Your task to perform on an android device: make emails show in primary in the gmail app Image 0: 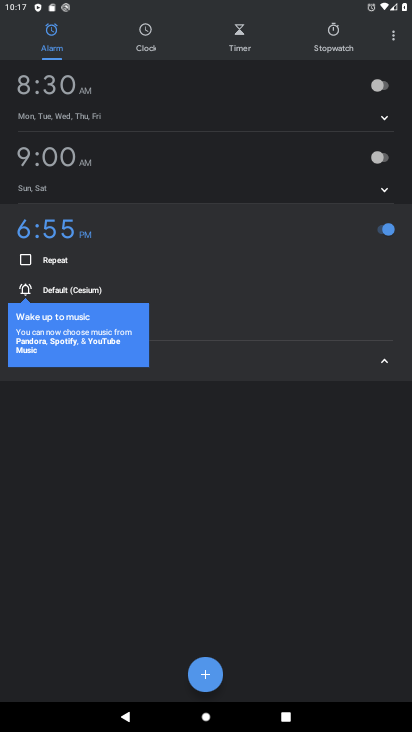
Step 0: press home button
Your task to perform on an android device: make emails show in primary in the gmail app Image 1: 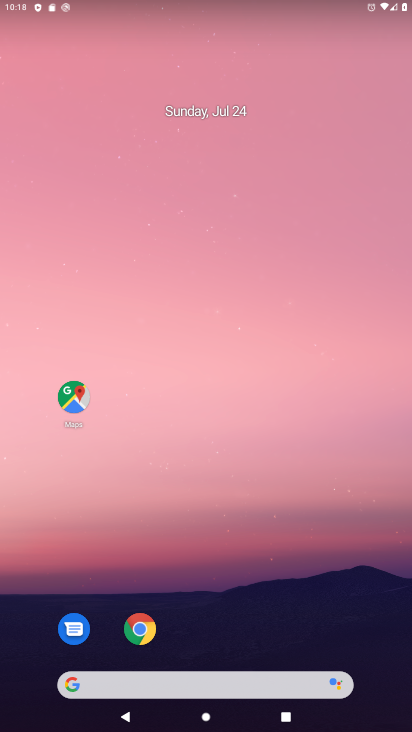
Step 1: drag from (166, 684) to (170, 188)
Your task to perform on an android device: make emails show in primary in the gmail app Image 2: 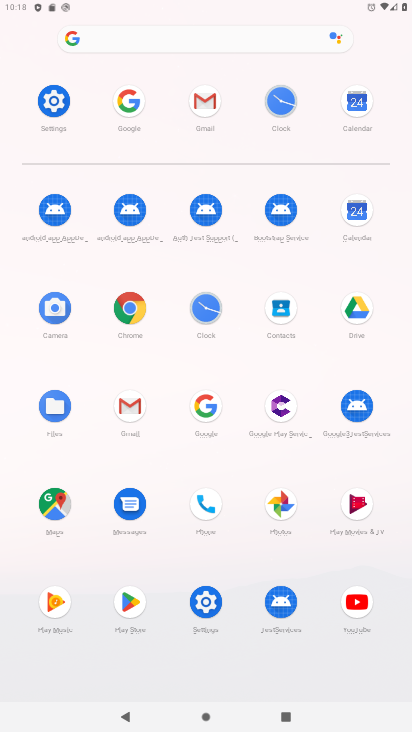
Step 2: click (205, 101)
Your task to perform on an android device: make emails show in primary in the gmail app Image 3: 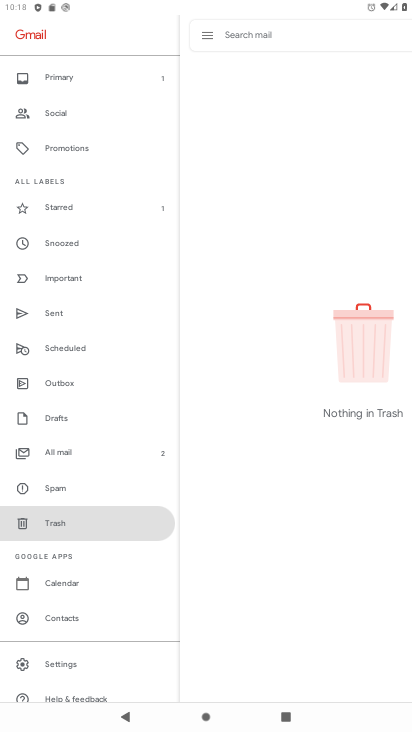
Step 3: click (118, 74)
Your task to perform on an android device: make emails show in primary in the gmail app Image 4: 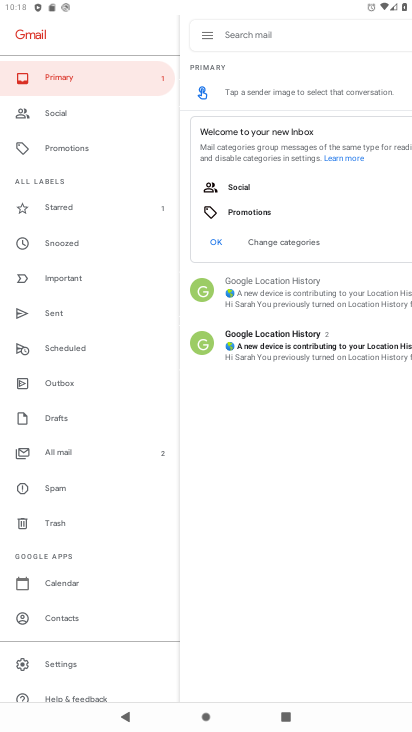
Step 4: task complete